Your task to perform on an android device: turn off wifi Image 0: 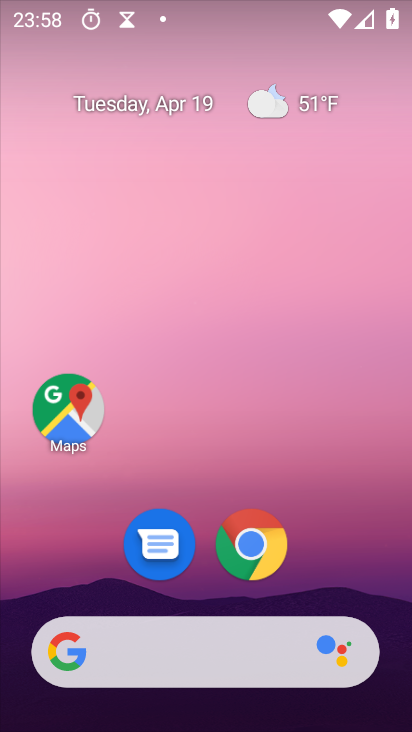
Step 0: drag from (333, 537) to (397, 50)
Your task to perform on an android device: turn off wifi Image 1: 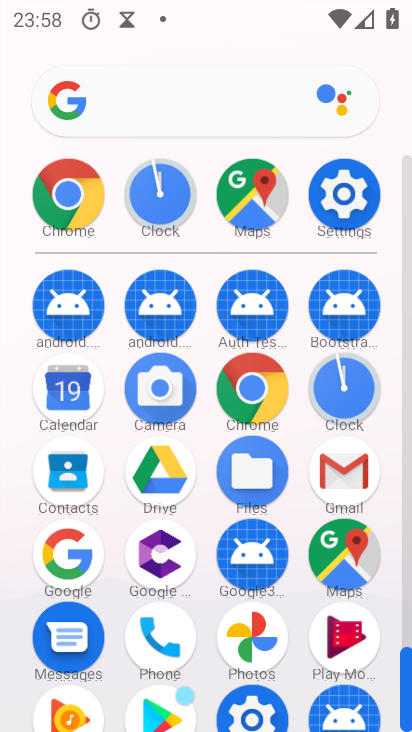
Step 1: click (342, 213)
Your task to perform on an android device: turn off wifi Image 2: 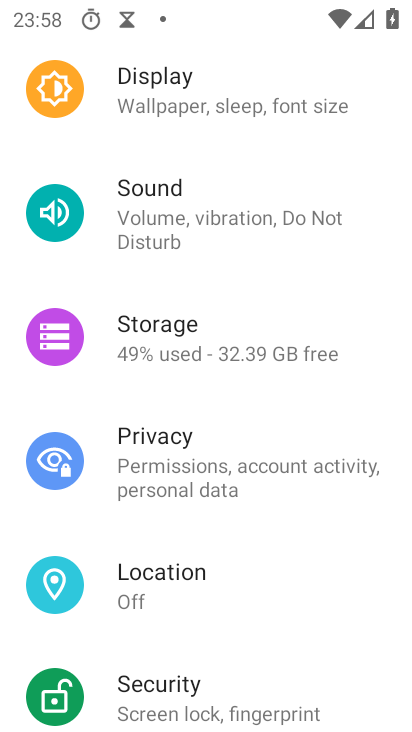
Step 2: drag from (150, 251) to (200, 345)
Your task to perform on an android device: turn off wifi Image 3: 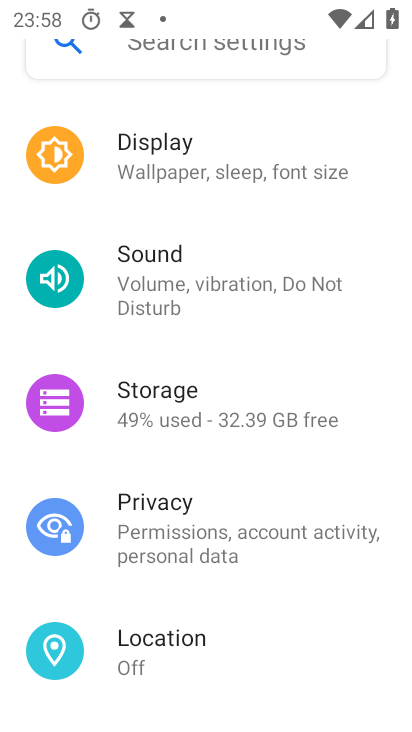
Step 3: drag from (207, 253) to (256, 352)
Your task to perform on an android device: turn off wifi Image 4: 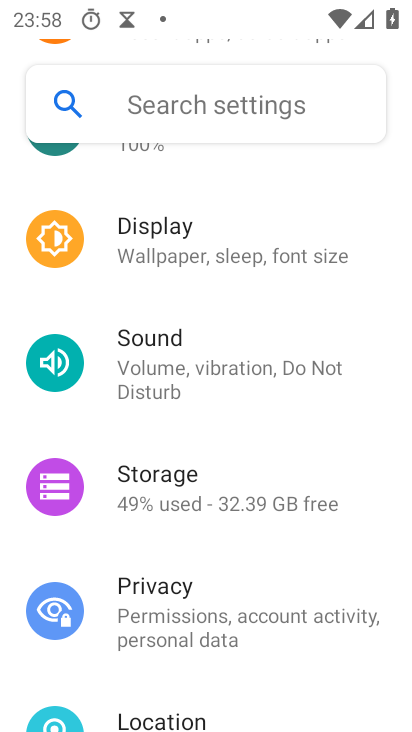
Step 4: drag from (242, 291) to (255, 362)
Your task to perform on an android device: turn off wifi Image 5: 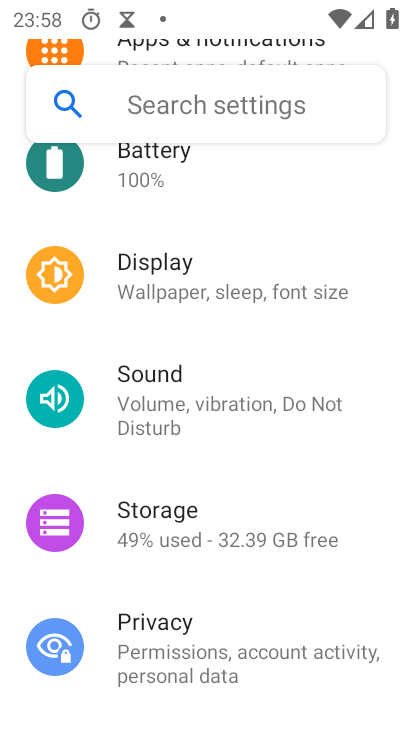
Step 5: drag from (215, 291) to (219, 368)
Your task to perform on an android device: turn off wifi Image 6: 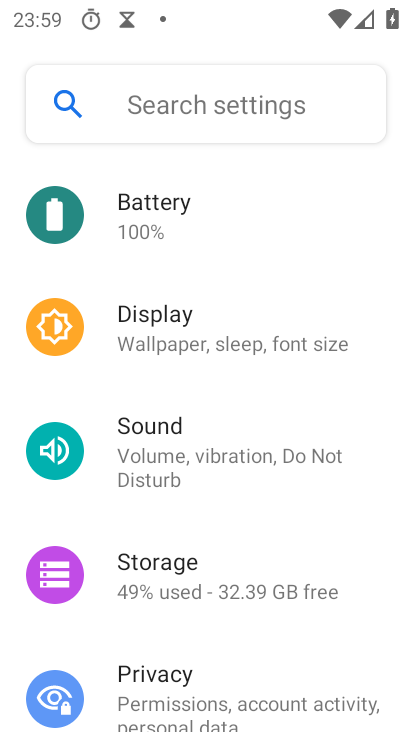
Step 6: drag from (220, 306) to (247, 400)
Your task to perform on an android device: turn off wifi Image 7: 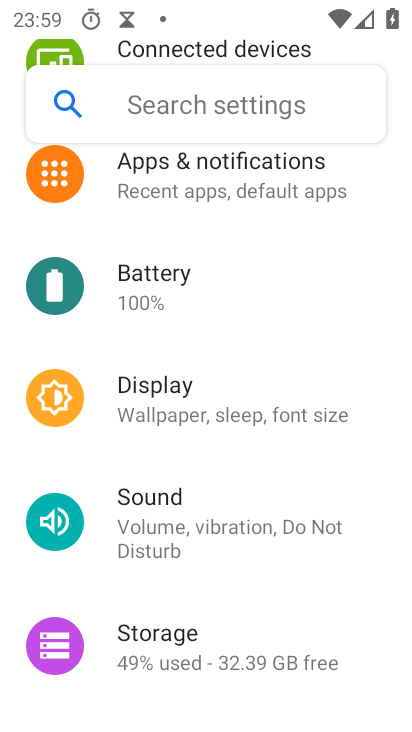
Step 7: drag from (234, 306) to (266, 384)
Your task to perform on an android device: turn off wifi Image 8: 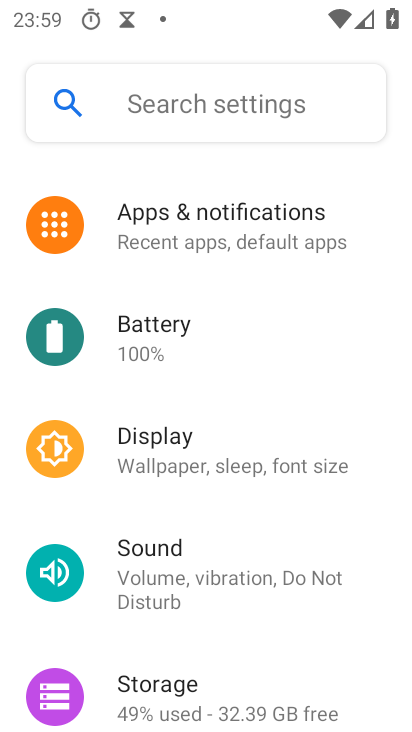
Step 8: drag from (231, 301) to (258, 368)
Your task to perform on an android device: turn off wifi Image 9: 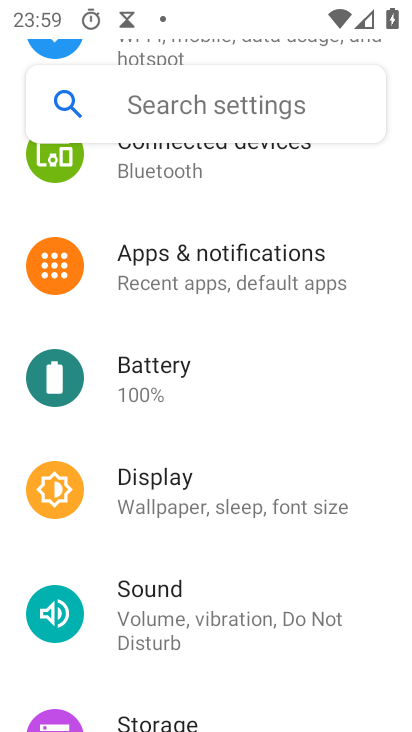
Step 9: drag from (227, 296) to (255, 338)
Your task to perform on an android device: turn off wifi Image 10: 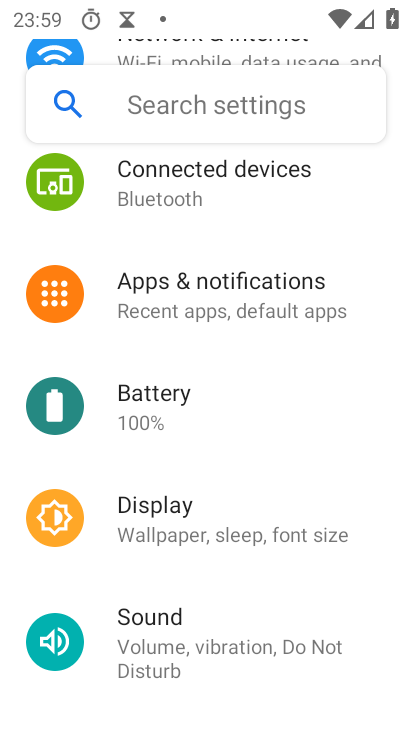
Step 10: drag from (233, 292) to (254, 374)
Your task to perform on an android device: turn off wifi Image 11: 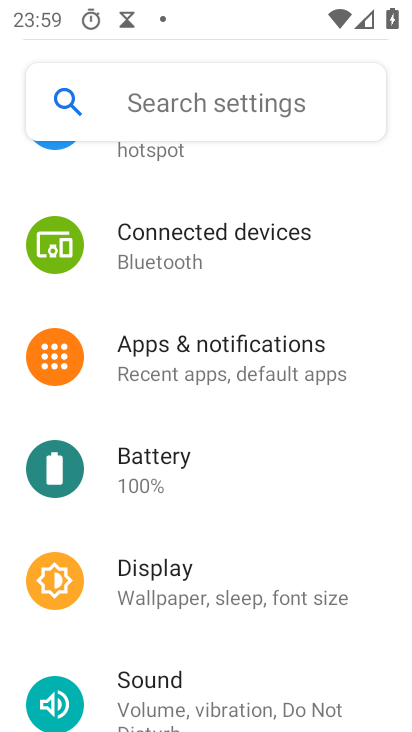
Step 11: drag from (224, 308) to (234, 387)
Your task to perform on an android device: turn off wifi Image 12: 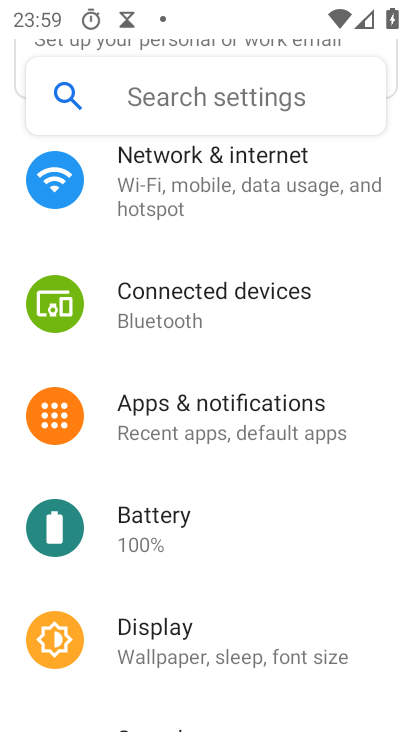
Step 12: click (198, 217)
Your task to perform on an android device: turn off wifi Image 13: 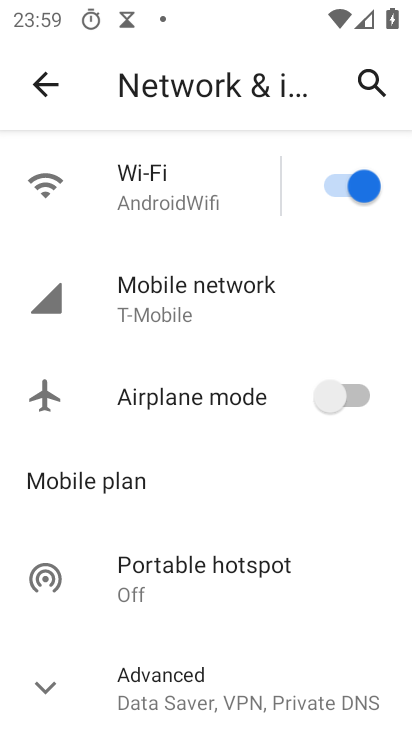
Step 13: click (351, 188)
Your task to perform on an android device: turn off wifi Image 14: 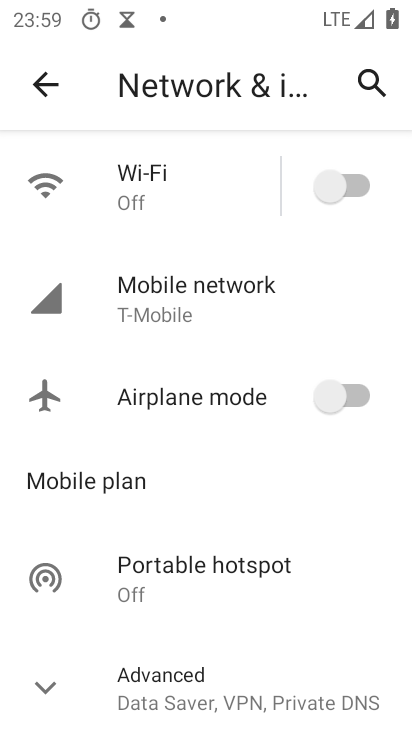
Step 14: task complete